Your task to perform on an android device: Open Reddit.com Image 0: 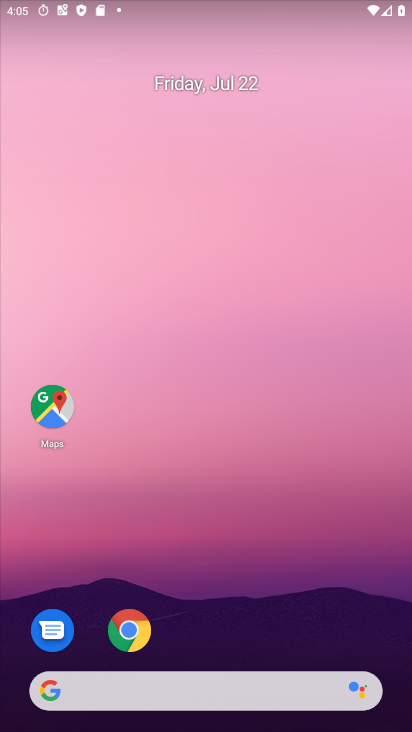
Step 0: drag from (275, 654) to (226, 10)
Your task to perform on an android device: Open Reddit.com Image 1: 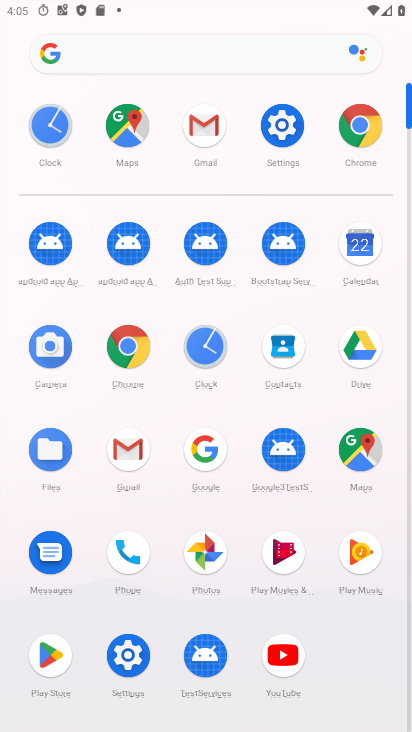
Step 1: click (133, 349)
Your task to perform on an android device: Open Reddit.com Image 2: 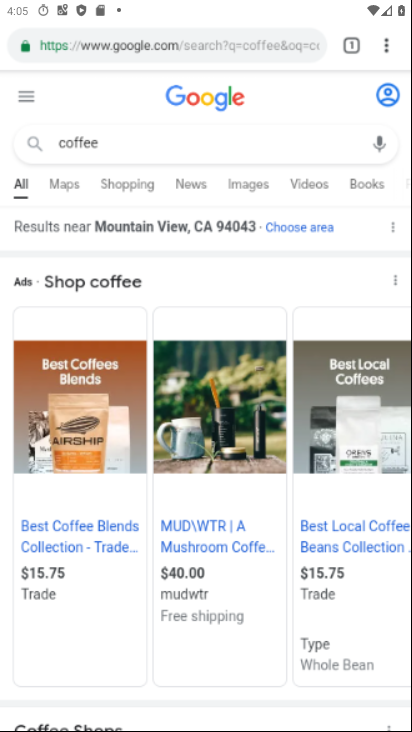
Step 2: click (200, 51)
Your task to perform on an android device: Open Reddit.com Image 3: 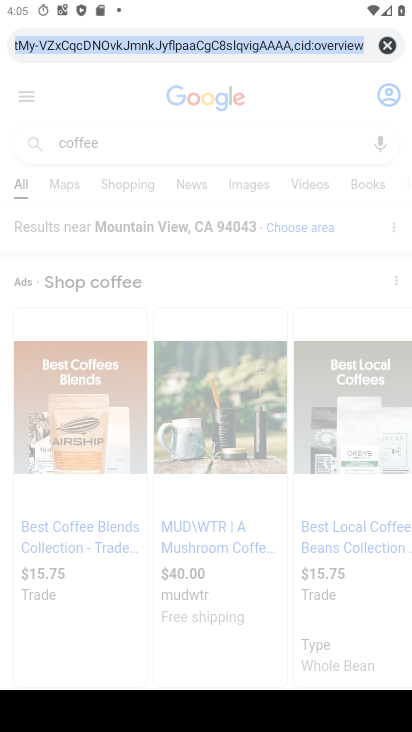
Step 3: type "reddit.com"
Your task to perform on an android device: Open Reddit.com Image 4: 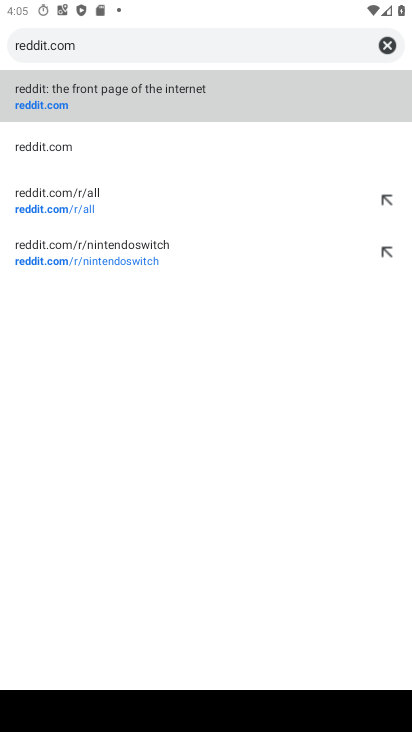
Step 4: click (195, 94)
Your task to perform on an android device: Open Reddit.com Image 5: 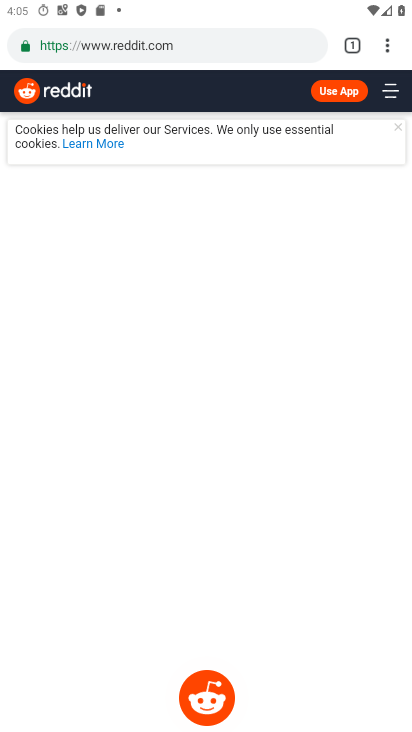
Step 5: task complete